Your task to perform on an android device: Install the Reddit app Image 0: 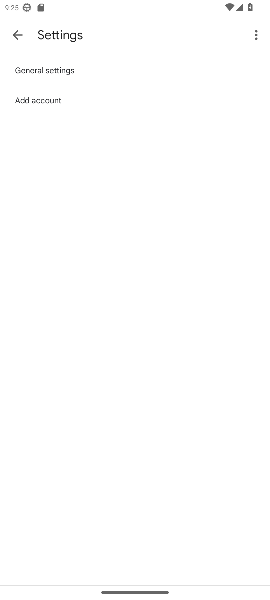
Step 0: press home button
Your task to perform on an android device: Install the Reddit app Image 1: 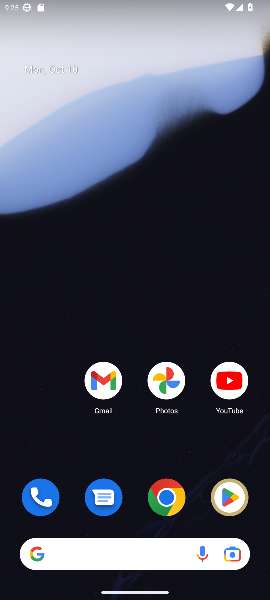
Step 1: drag from (139, 516) to (162, 241)
Your task to perform on an android device: Install the Reddit app Image 2: 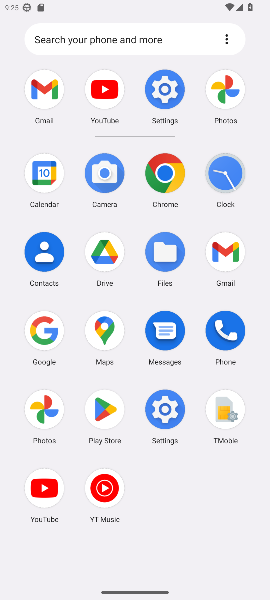
Step 2: click (50, 321)
Your task to perform on an android device: Install the Reddit app Image 3: 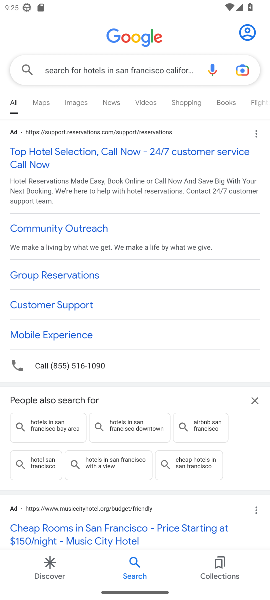
Step 3: click (92, 63)
Your task to perform on an android device: Install the Reddit app Image 4: 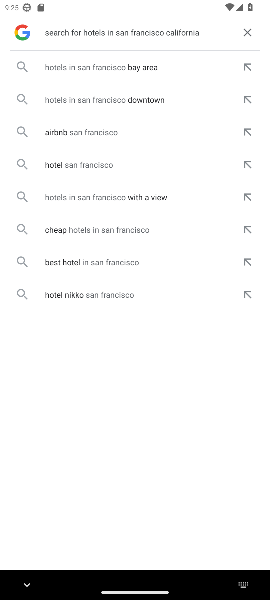
Step 4: click (247, 33)
Your task to perform on an android device: Install the Reddit app Image 5: 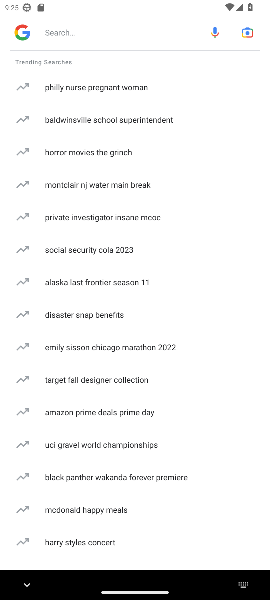
Step 5: click (102, 30)
Your task to perform on an android device: Install the Reddit app Image 6: 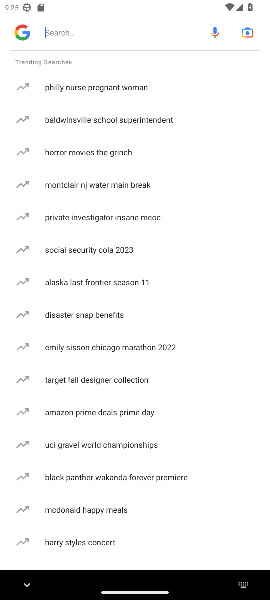
Step 6: type "Install the Reddit app "
Your task to perform on an android device: Install the Reddit app Image 7: 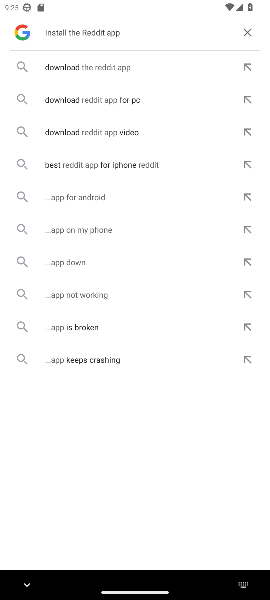
Step 7: click (122, 101)
Your task to perform on an android device: Install the Reddit app Image 8: 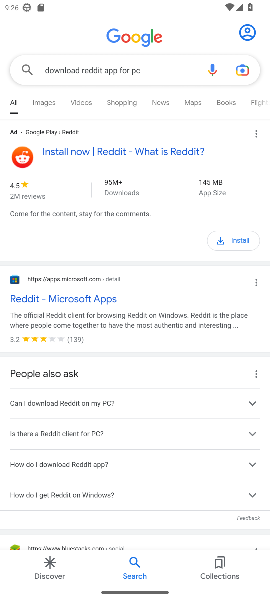
Step 8: click (85, 152)
Your task to perform on an android device: Install the Reddit app Image 9: 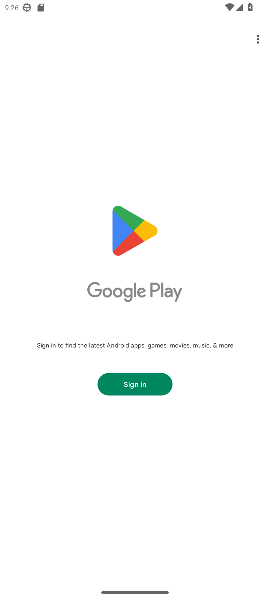
Step 9: click (123, 389)
Your task to perform on an android device: Install the Reddit app Image 10: 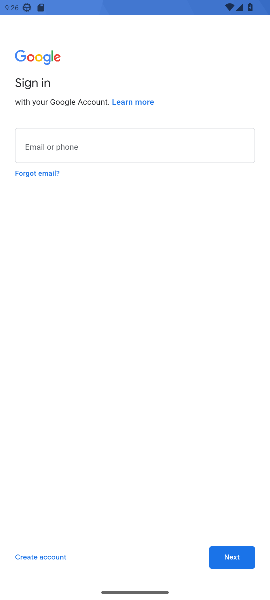
Step 10: task complete